Your task to perform on an android device: turn off smart reply in the gmail app Image 0: 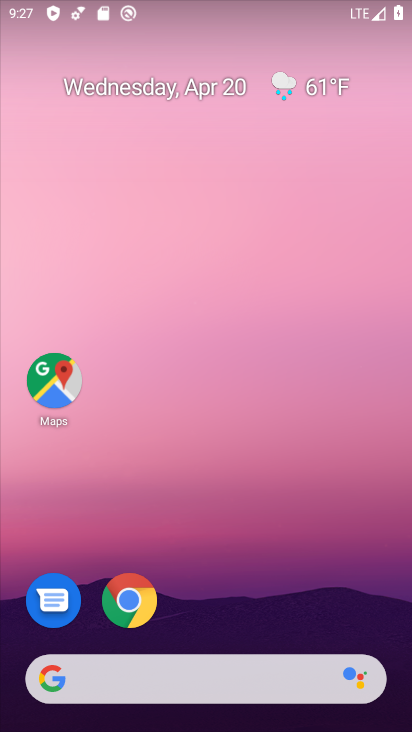
Step 0: drag from (198, 636) to (236, 169)
Your task to perform on an android device: turn off smart reply in the gmail app Image 1: 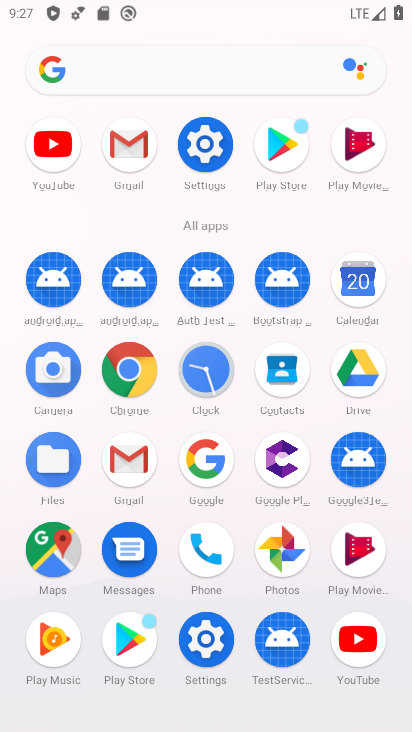
Step 1: click (111, 138)
Your task to perform on an android device: turn off smart reply in the gmail app Image 2: 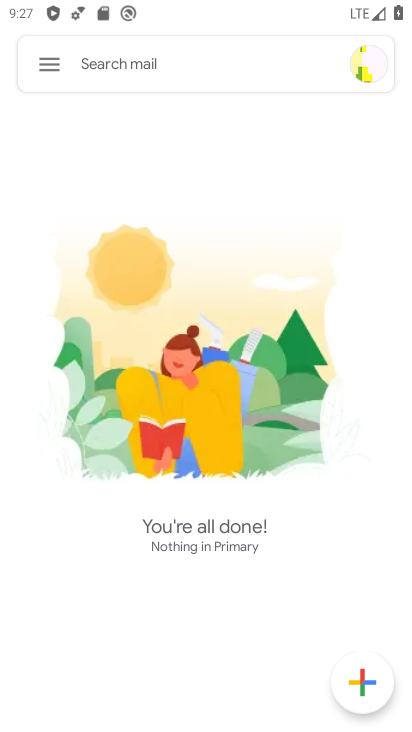
Step 2: click (57, 65)
Your task to perform on an android device: turn off smart reply in the gmail app Image 3: 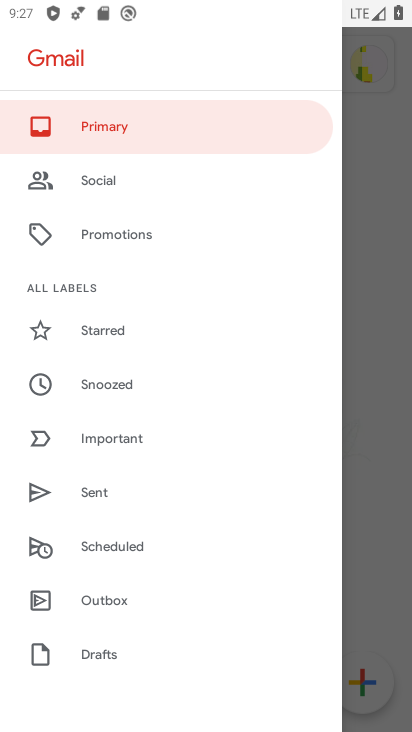
Step 3: drag from (129, 669) to (152, 197)
Your task to perform on an android device: turn off smart reply in the gmail app Image 4: 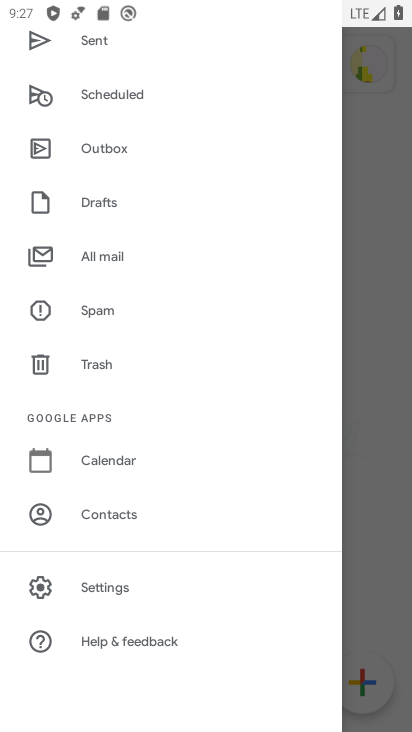
Step 4: click (117, 584)
Your task to perform on an android device: turn off smart reply in the gmail app Image 5: 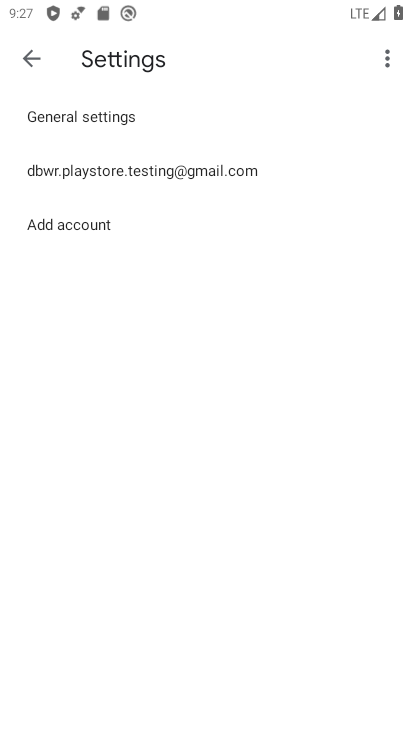
Step 5: click (188, 161)
Your task to perform on an android device: turn off smart reply in the gmail app Image 6: 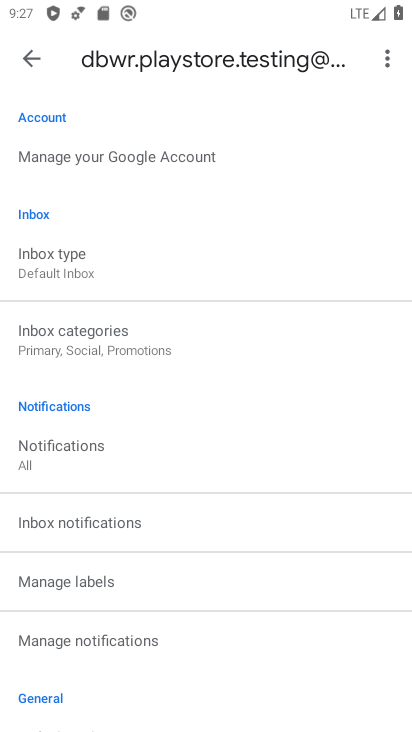
Step 6: drag from (207, 576) to (239, 117)
Your task to perform on an android device: turn off smart reply in the gmail app Image 7: 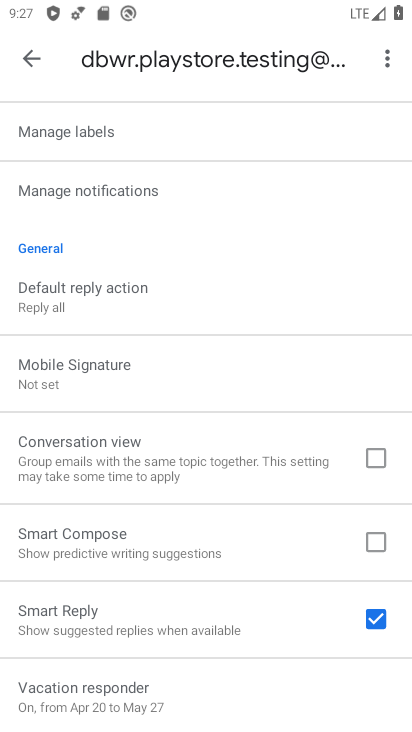
Step 7: click (382, 617)
Your task to perform on an android device: turn off smart reply in the gmail app Image 8: 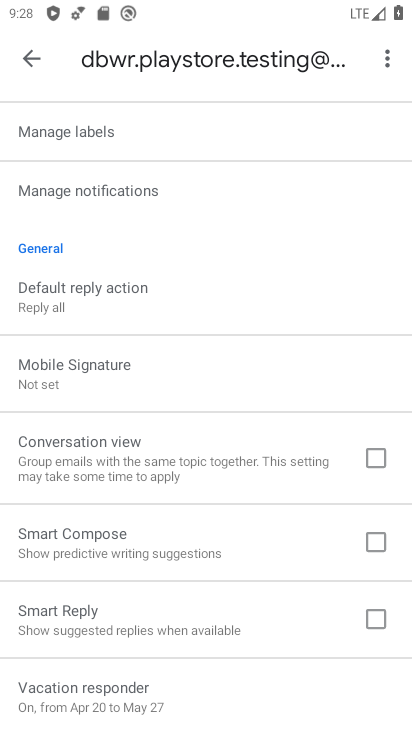
Step 8: task complete